Your task to perform on an android device: Open settings Image 0: 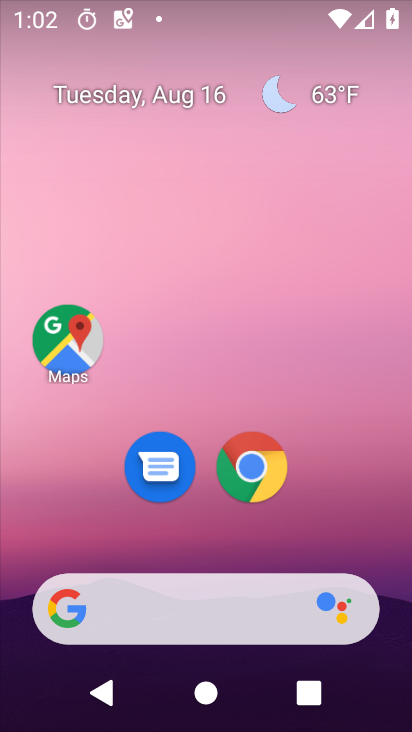
Step 0: press home button
Your task to perform on an android device: Open settings Image 1: 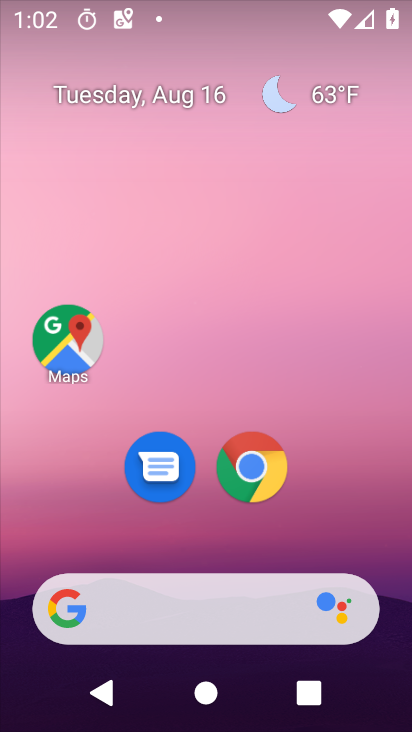
Step 1: drag from (358, 540) to (357, 160)
Your task to perform on an android device: Open settings Image 2: 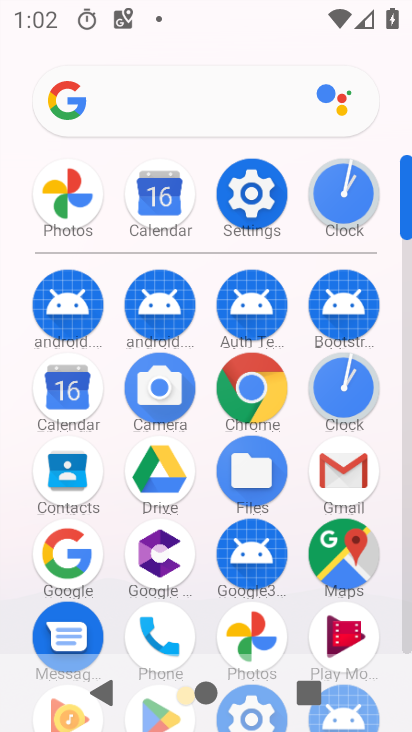
Step 2: click (256, 190)
Your task to perform on an android device: Open settings Image 3: 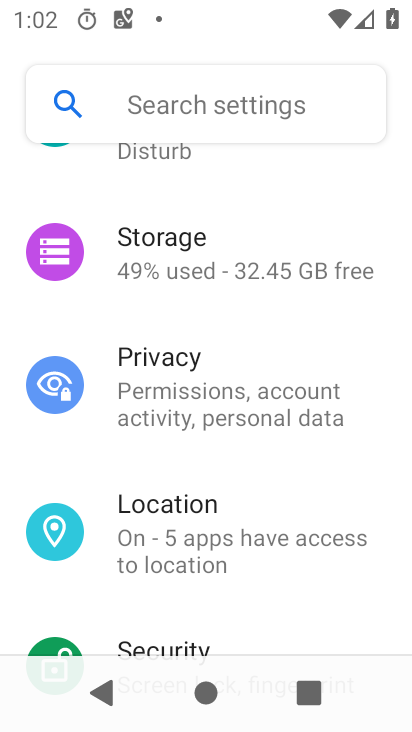
Step 3: task complete